Your task to perform on an android device: Open Google Maps Image 0: 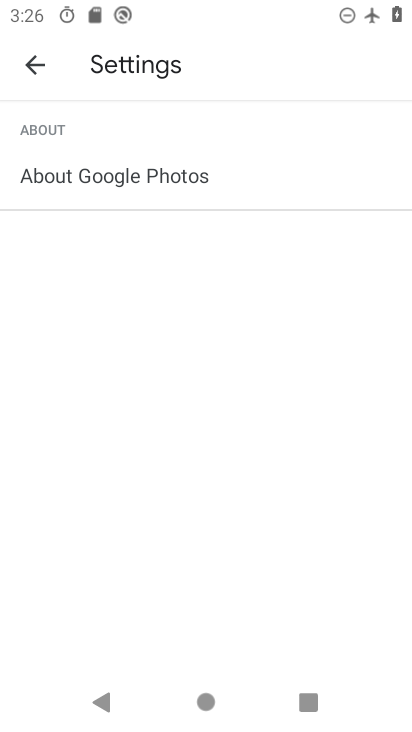
Step 0: press home button
Your task to perform on an android device: Open Google Maps Image 1: 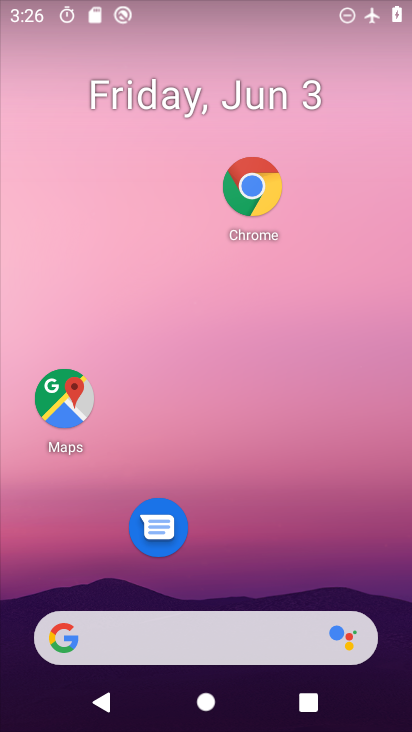
Step 1: click (64, 395)
Your task to perform on an android device: Open Google Maps Image 2: 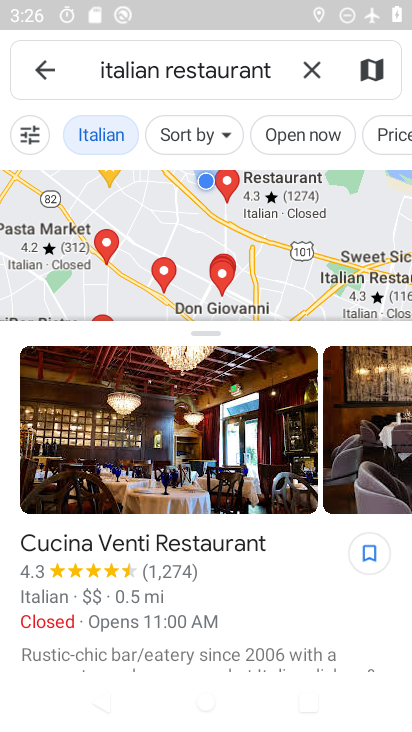
Step 2: task complete